Your task to perform on an android device: Open Google Chrome and open the bookmarks view Image 0: 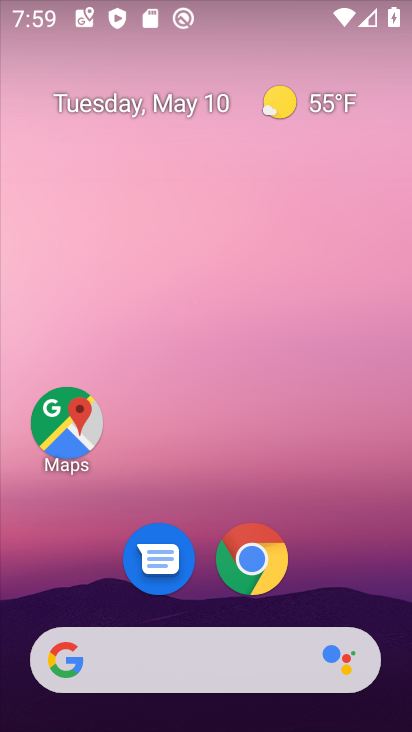
Step 0: click (253, 556)
Your task to perform on an android device: Open Google Chrome and open the bookmarks view Image 1: 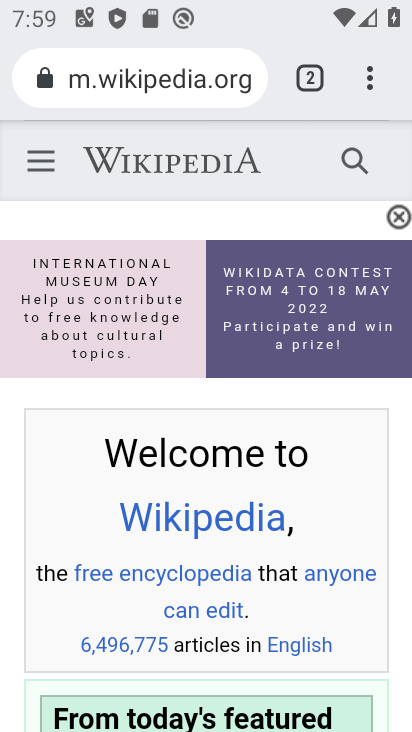
Step 1: click (372, 86)
Your task to perform on an android device: Open Google Chrome and open the bookmarks view Image 2: 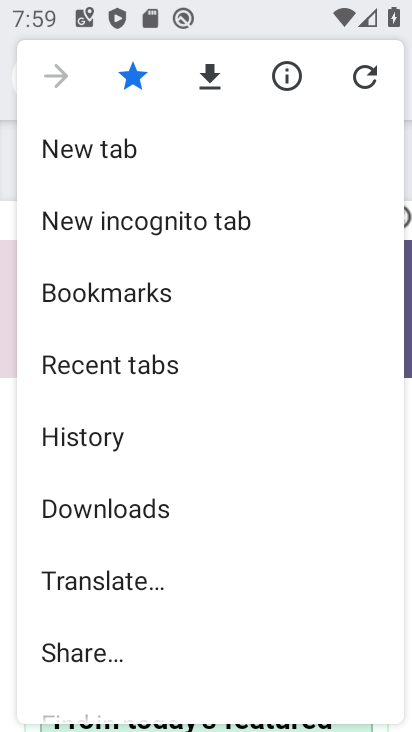
Step 2: click (93, 289)
Your task to perform on an android device: Open Google Chrome and open the bookmarks view Image 3: 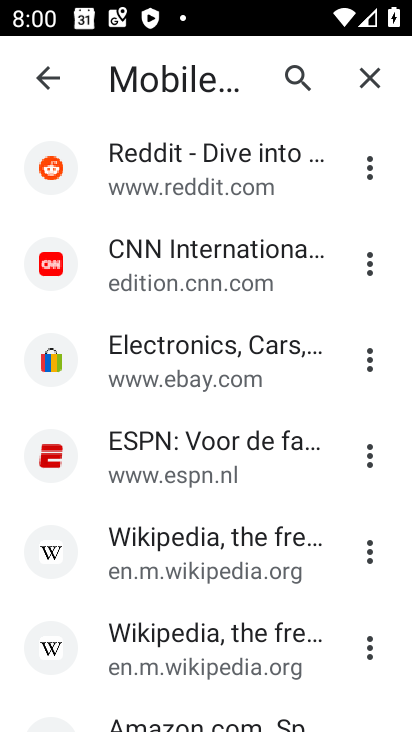
Step 3: task complete